Your task to perform on an android device: open app "TextNow: Call + Text Unlimited" (install if not already installed) and enter user name: "stoke@yahoo.com" and password: "prompted" Image 0: 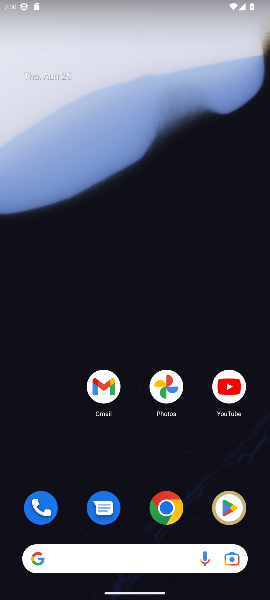
Step 0: click (235, 503)
Your task to perform on an android device: open app "TextNow: Call + Text Unlimited" (install if not already installed) and enter user name: "stoke@yahoo.com" and password: "prompted" Image 1: 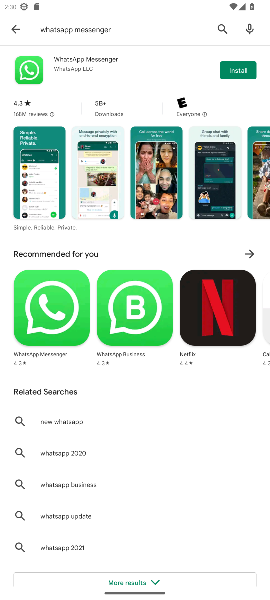
Step 1: click (218, 27)
Your task to perform on an android device: open app "TextNow: Call + Text Unlimited" (install if not already installed) and enter user name: "stoke@yahoo.com" and password: "prompted" Image 2: 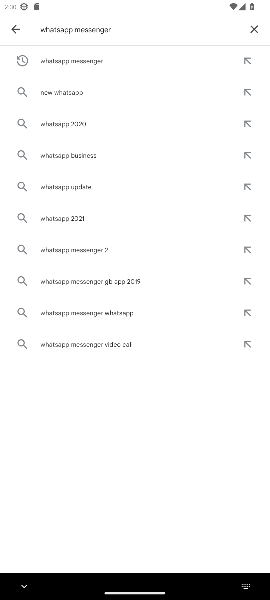
Step 2: click (254, 31)
Your task to perform on an android device: open app "TextNow: Call + Text Unlimited" (install if not already installed) and enter user name: "stoke@yahoo.com" and password: "prompted" Image 3: 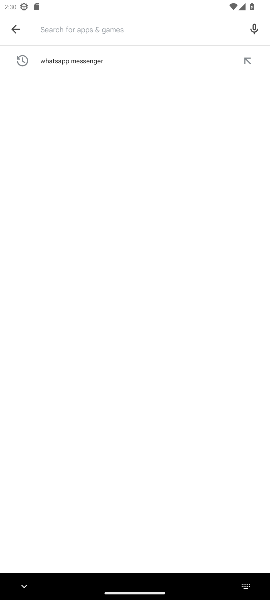
Step 3: type "TextNow: Call + Text Unlimited"
Your task to perform on an android device: open app "TextNow: Call + Text Unlimited" (install if not already installed) and enter user name: "stoke@yahoo.com" and password: "prompted" Image 4: 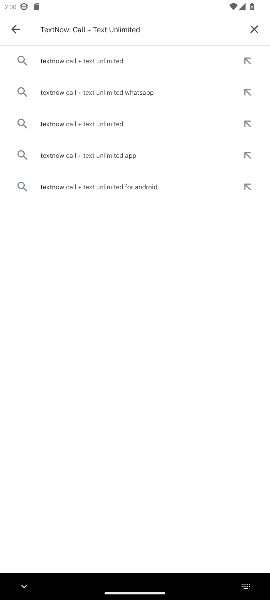
Step 4: click (104, 57)
Your task to perform on an android device: open app "TextNow: Call + Text Unlimited" (install if not already installed) and enter user name: "stoke@yahoo.com" and password: "prompted" Image 5: 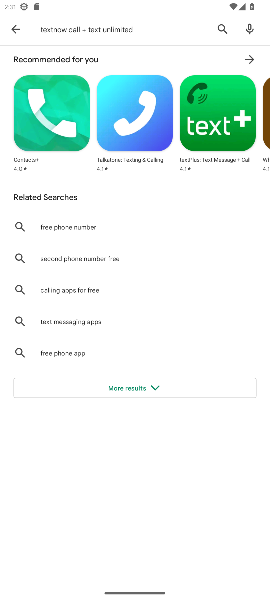
Step 5: click (150, 387)
Your task to perform on an android device: open app "TextNow: Call + Text Unlimited" (install if not already installed) and enter user name: "stoke@yahoo.com" and password: "prompted" Image 6: 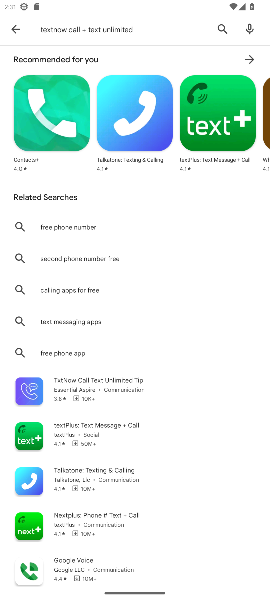
Step 6: drag from (149, 505) to (186, 300)
Your task to perform on an android device: open app "TextNow: Call + Text Unlimited" (install if not already installed) and enter user name: "stoke@yahoo.com" and password: "prompted" Image 7: 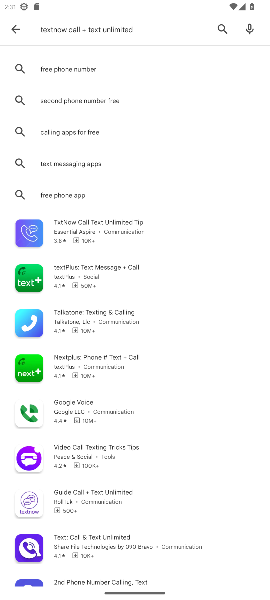
Step 7: click (114, 235)
Your task to perform on an android device: open app "TextNow: Call + Text Unlimited" (install if not already installed) and enter user name: "stoke@yahoo.com" and password: "prompted" Image 8: 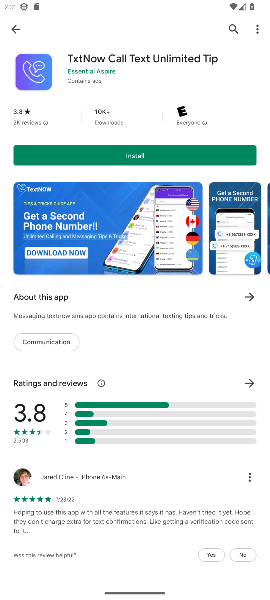
Step 8: click (134, 159)
Your task to perform on an android device: open app "TextNow: Call + Text Unlimited" (install if not already installed) and enter user name: "stoke@yahoo.com" and password: "prompted" Image 9: 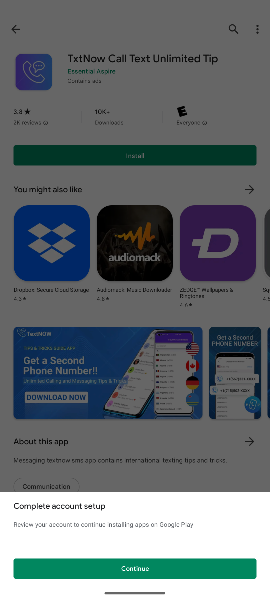
Step 9: click (144, 572)
Your task to perform on an android device: open app "TextNow: Call + Text Unlimited" (install if not already installed) and enter user name: "stoke@yahoo.com" and password: "prompted" Image 10: 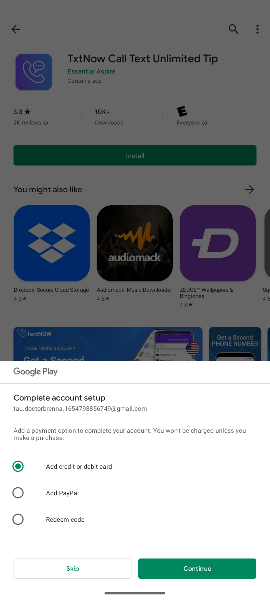
Step 10: click (68, 564)
Your task to perform on an android device: open app "TextNow: Call + Text Unlimited" (install if not already installed) and enter user name: "stoke@yahoo.com" and password: "prompted" Image 11: 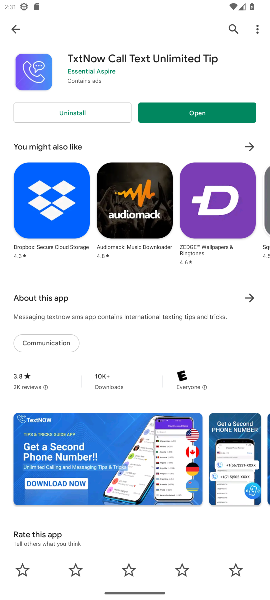
Step 11: click (242, 112)
Your task to perform on an android device: open app "TextNow: Call + Text Unlimited" (install if not already installed) and enter user name: "stoke@yahoo.com" and password: "prompted" Image 12: 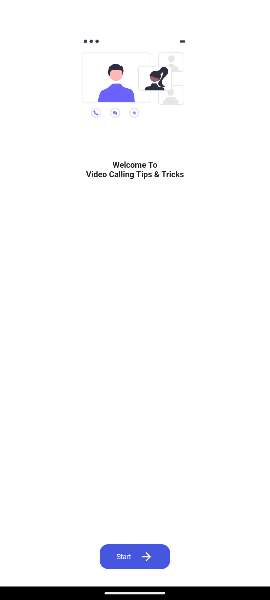
Step 12: click (137, 558)
Your task to perform on an android device: open app "TextNow: Call + Text Unlimited" (install if not already installed) and enter user name: "stoke@yahoo.com" and password: "prompted" Image 13: 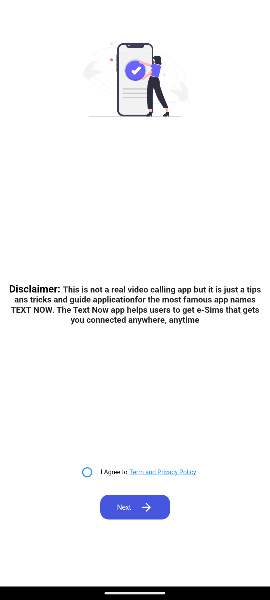
Step 13: click (153, 507)
Your task to perform on an android device: open app "TextNow: Call + Text Unlimited" (install if not already installed) and enter user name: "stoke@yahoo.com" and password: "prompted" Image 14: 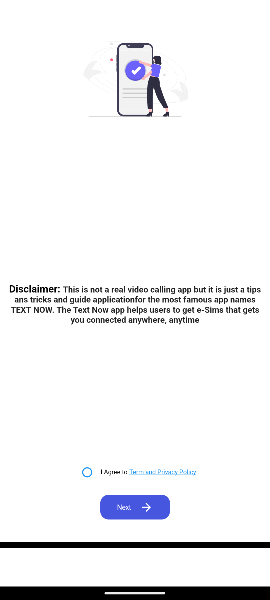
Step 14: click (143, 508)
Your task to perform on an android device: open app "TextNow: Call + Text Unlimited" (install if not already installed) and enter user name: "stoke@yahoo.com" and password: "prompted" Image 15: 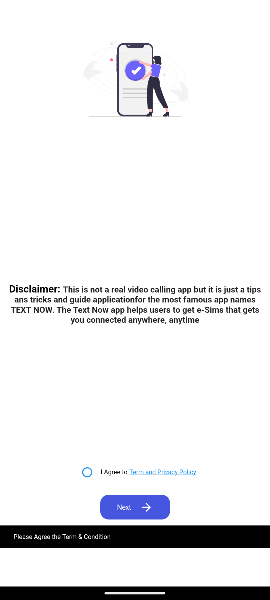
Step 15: task complete